Your task to perform on an android device: Play the last video I watched on Youtube Image 0: 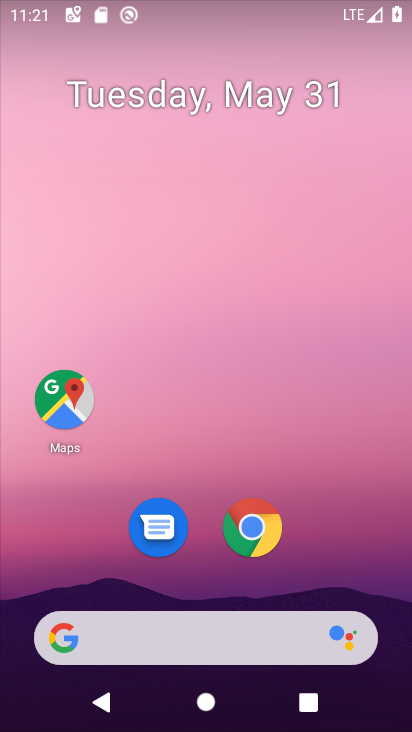
Step 0: drag from (339, 582) to (326, 0)
Your task to perform on an android device: Play the last video I watched on Youtube Image 1: 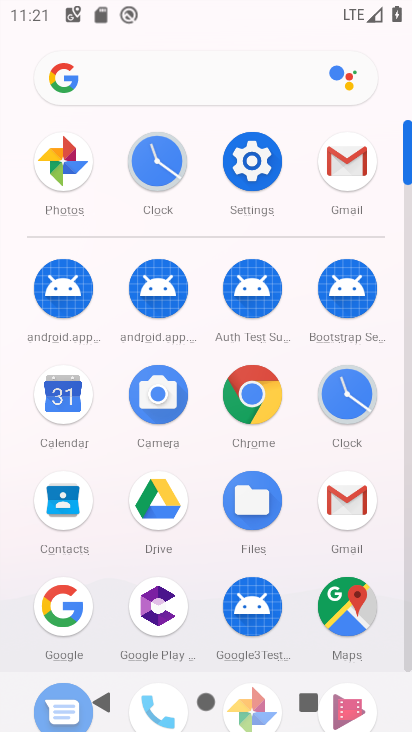
Step 1: click (408, 545)
Your task to perform on an android device: Play the last video I watched on Youtube Image 2: 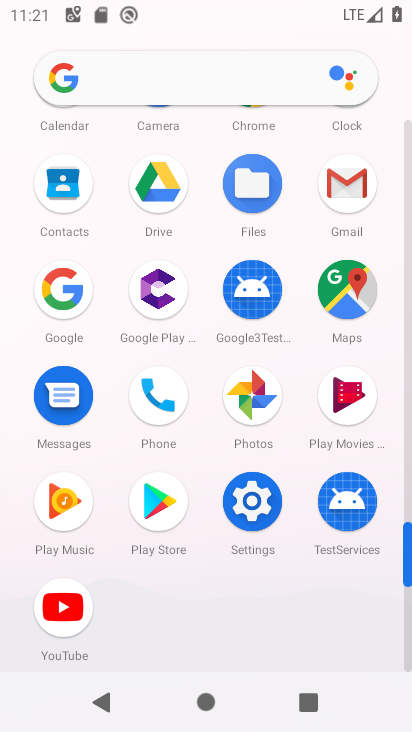
Step 2: click (69, 617)
Your task to perform on an android device: Play the last video I watched on Youtube Image 3: 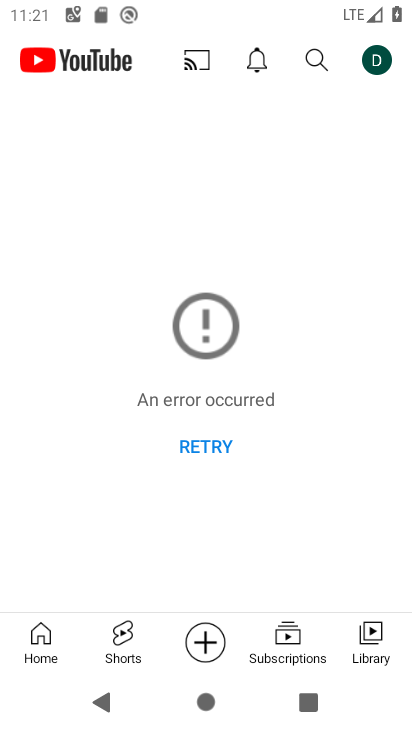
Step 3: click (369, 652)
Your task to perform on an android device: Play the last video I watched on Youtube Image 4: 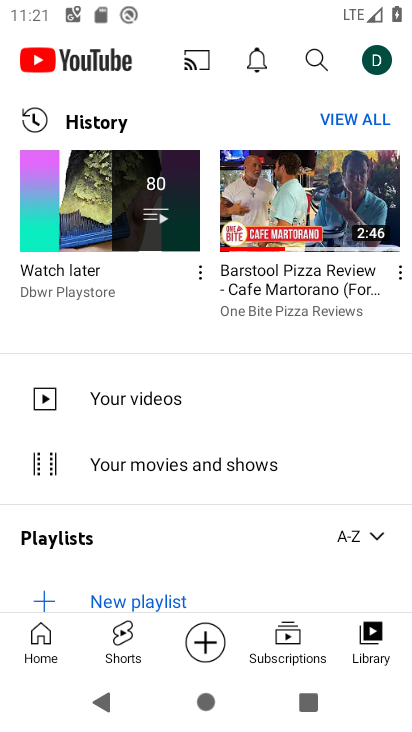
Step 4: click (79, 198)
Your task to perform on an android device: Play the last video I watched on Youtube Image 5: 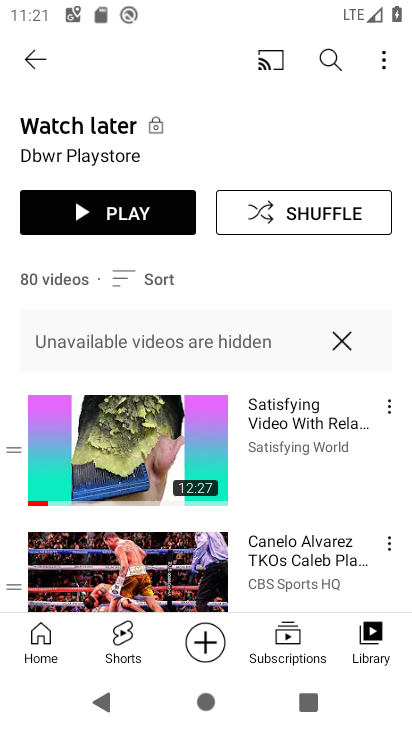
Step 5: click (116, 440)
Your task to perform on an android device: Play the last video I watched on Youtube Image 6: 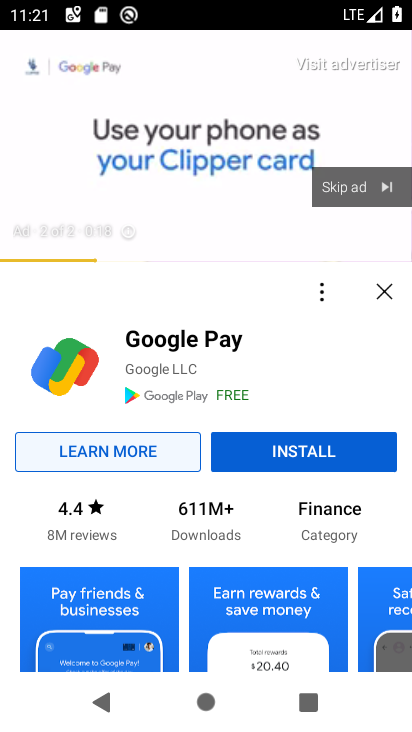
Step 6: click (360, 196)
Your task to perform on an android device: Play the last video I watched on Youtube Image 7: 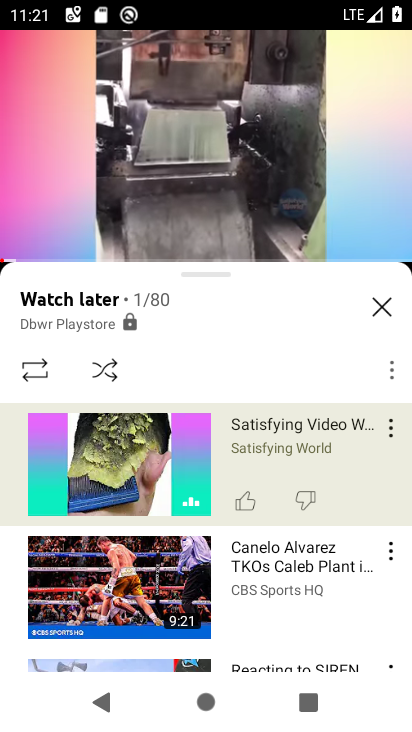
Step 7: click (209, 156)
Your task to perform on an android device: Play the last video I watched on Youtube Image 8: 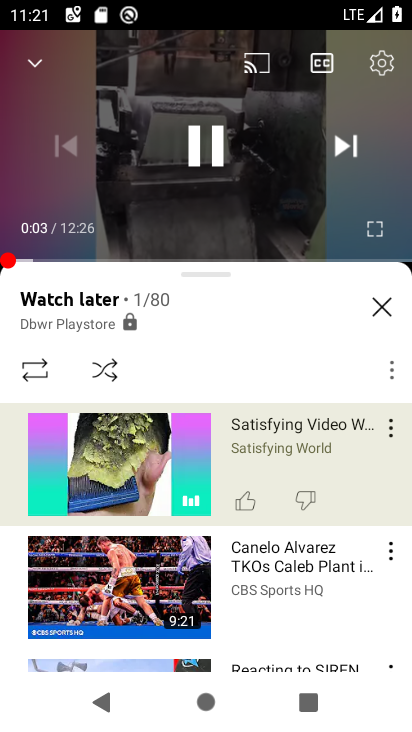
Step 8: click (209, 156)
Your task to perform on an android device: Play the last video I watched on Youtube Image 9: 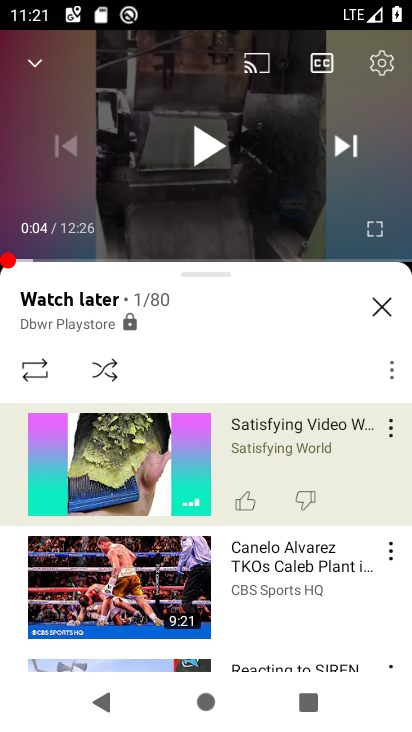
Step 9: task complete